Your task to perform on an android device: What's the latest video from GameSpot eSports? Image 0: 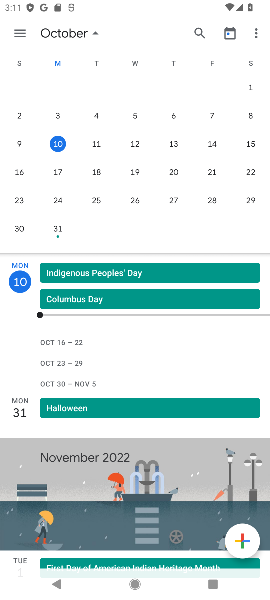
Step 0: press home button
Your task to perform on an android device: What's the latest video from GameSpot eSports? Image 1: 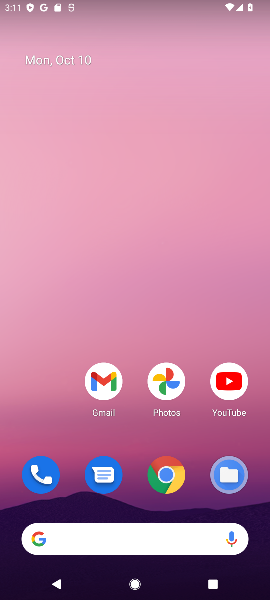
Step 1: drag from (166, 487) to (194, 160)
Your task to perform on an android device: What's the latest video from GameSpot eSports? Image 2: 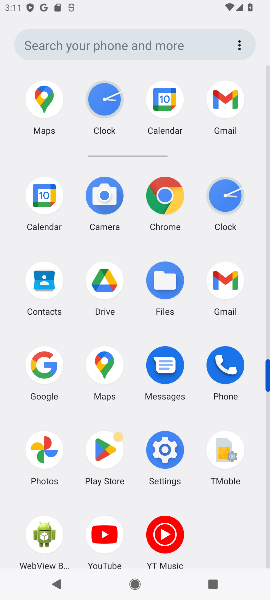
Step 2: click (44, 372)
Your task to perform on an android device: What's the latest video from GameSpot eSports? Image 3: 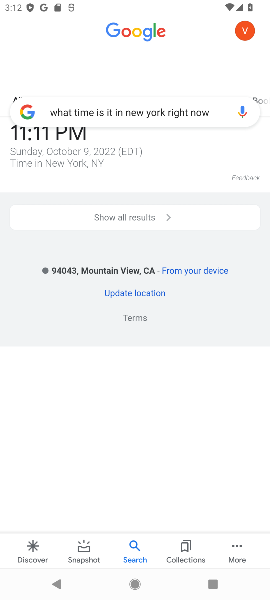
Step 3: click (216, 112)
Your task to perform on an android device: What's the latest video from GameSpot eSports? Image 4: 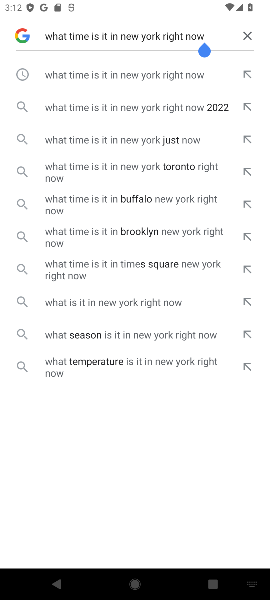
Step 4: click (247, 30)
Your task to perform on an android device: What's the latest video from GameSpot eSports? Image 5: 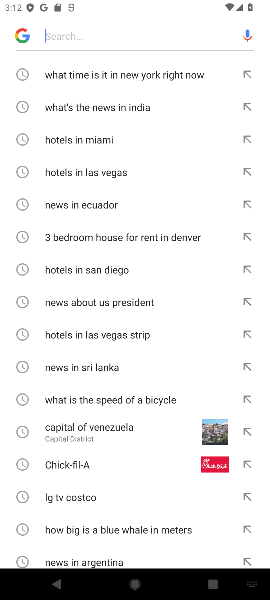
Step 5: type "GameSpot eSports?"
Your task to perform on an android device: What's the latest video from GameSpot eSports? Image 6: 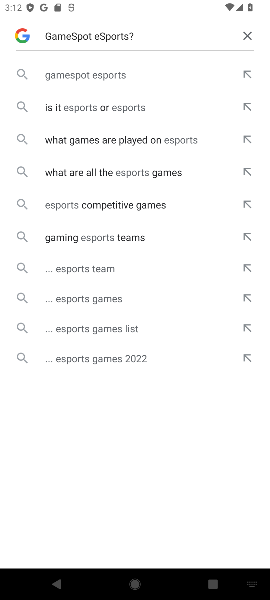
Step 6: click (112, 68)
Your task to perform on an android device: What's the latest video from GameSpot eSports? Image 7: 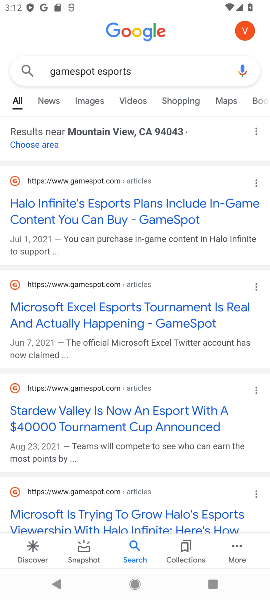
Step 7: click (96, 218)
Your task to perform on an android device: What's the latest video from GameSpot eSports? Image 8: 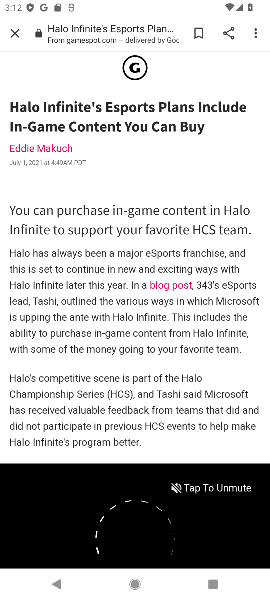
Step 8: task complete